Your task to perform on an android device: Show me the best rated coffee table on Ikea Image 0: 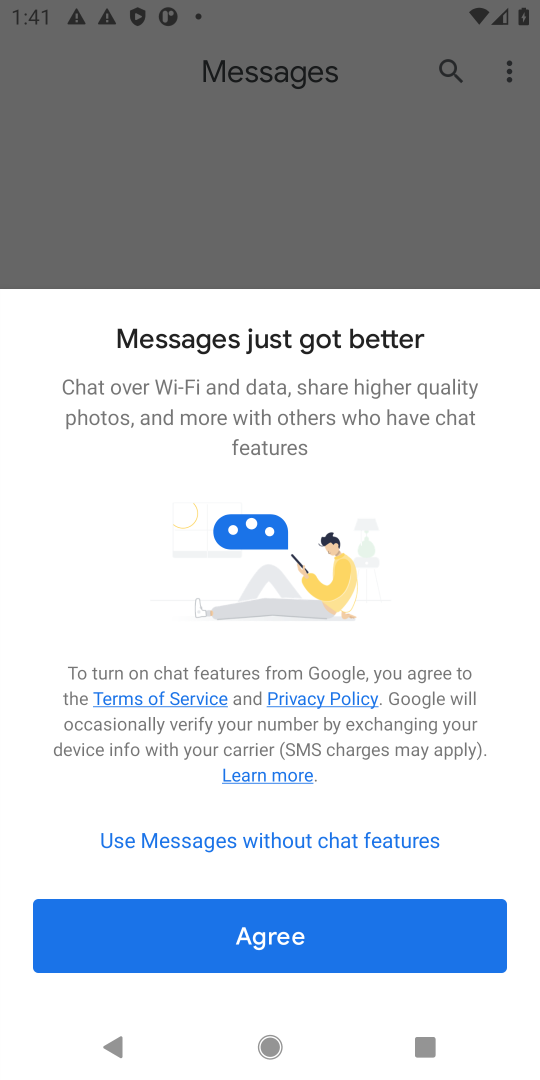
Step 0: press home button
Your task to perform on an android device: Show me the best rated coffee table on Ikea Image 1: 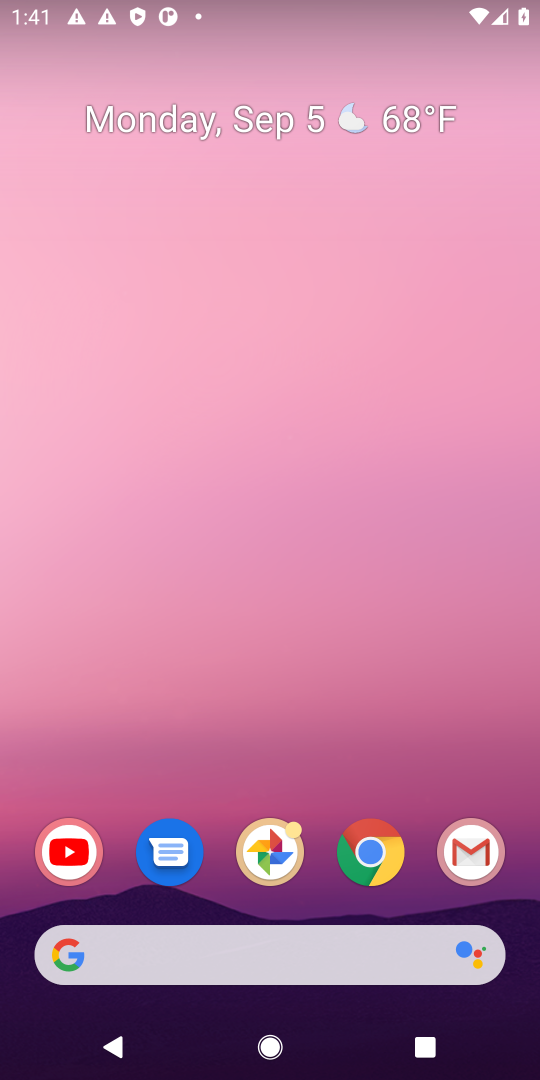
Step 1: click (372, 851)
Your task to perform on an android device: Show me the best rated coffee table on Ikea Image 2: 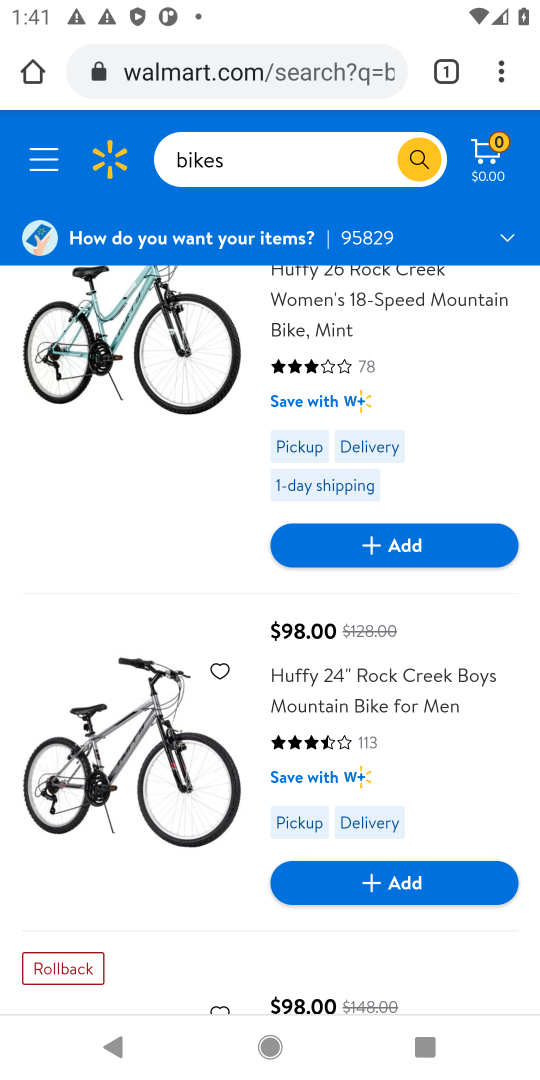
Step 2: click (293, 52)
Your task to perform on an android device: Show me the best rated coffee table on Ikea Image 3: 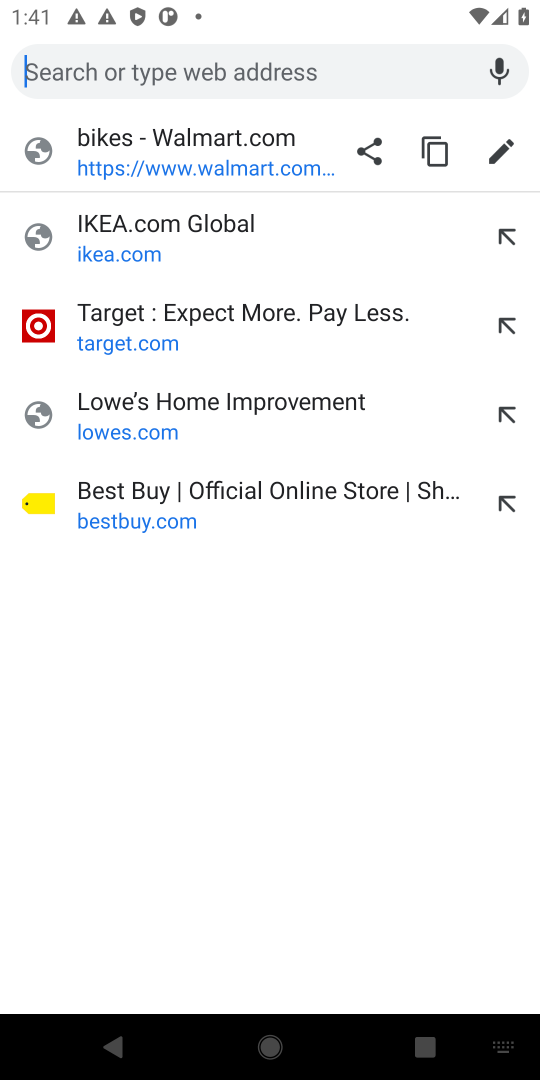
Step 3: type "Ikea"
Your task to perform on an android device: Show me the best rated coffee table on Ikea Image 4: 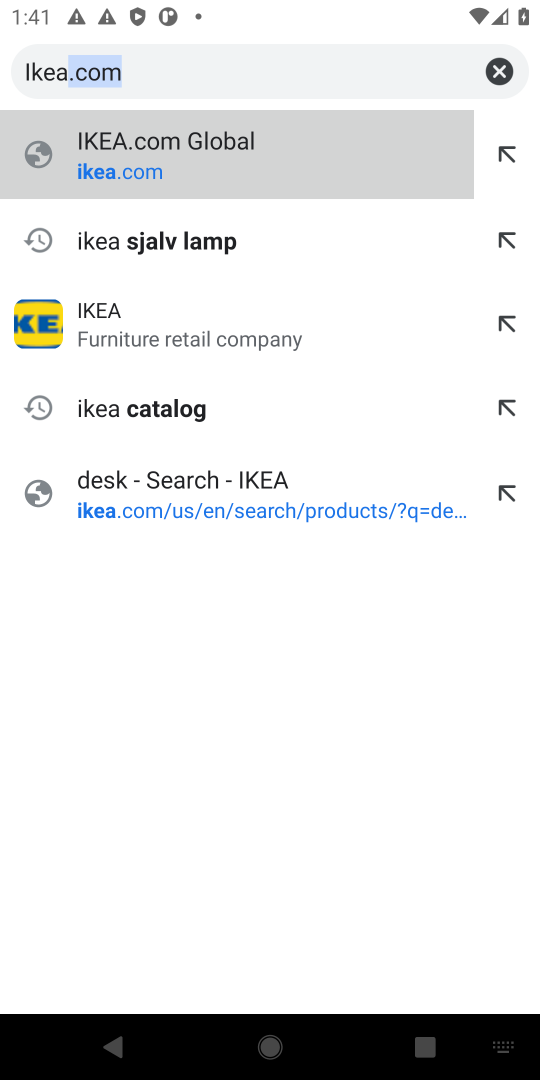
Step 4: click (135, 310)
Your task to perform on an android device: Show me the best rated coffee table on Ikea Image 5: 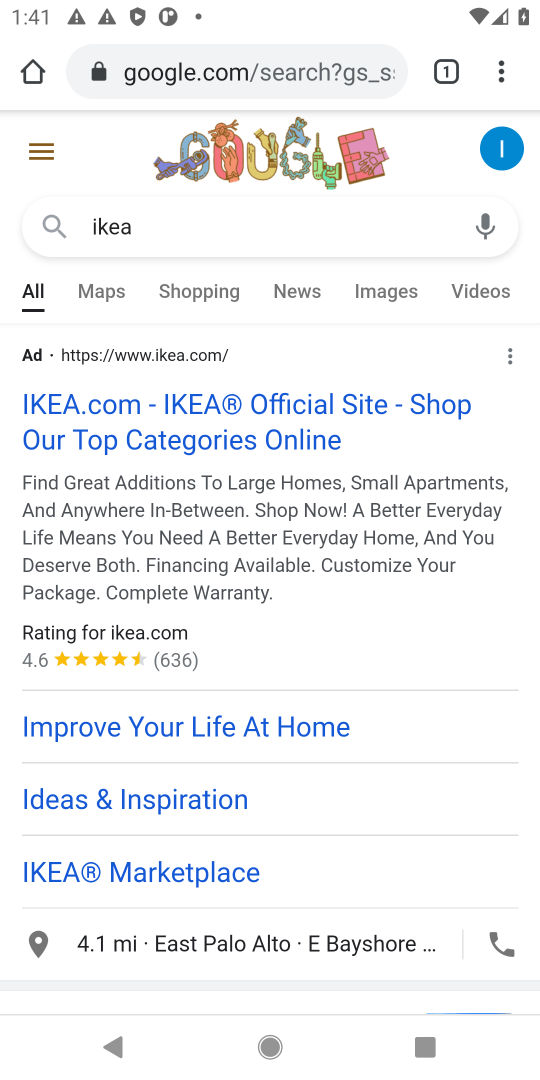
Step 5: click (72, 406)
Your task to perform on an android device: Show me the best rated coffee table on Ikea Image 6: 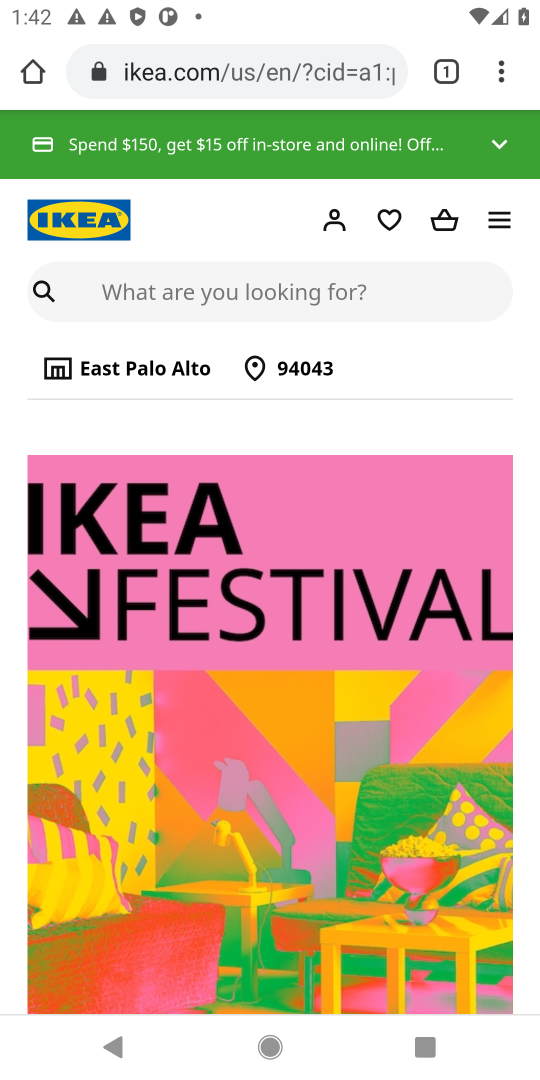
Step 6: click (154, 283)
Your task to perform on an android device: Show me the best rated coffee table on Ikea Image 7: 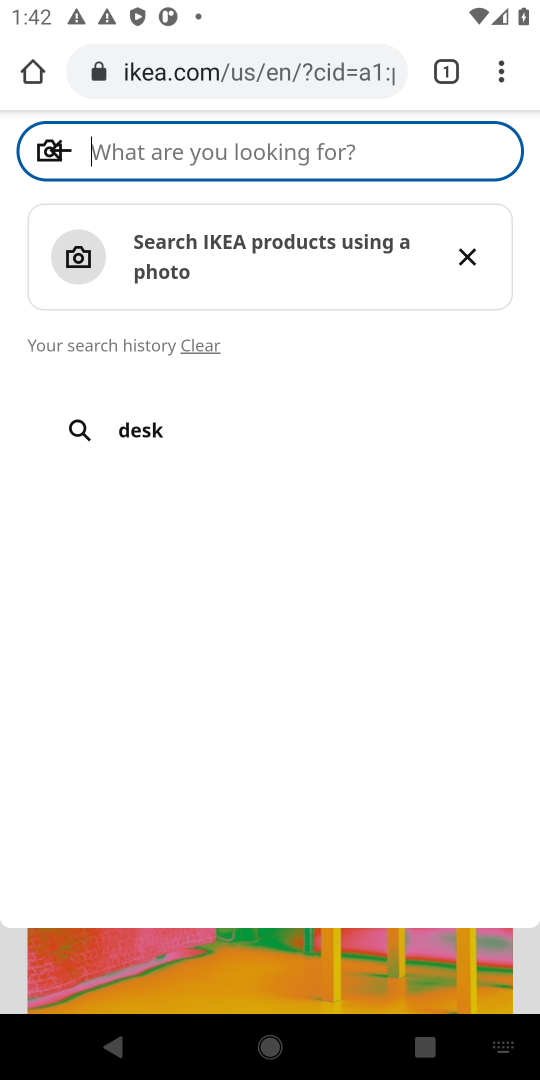
Step 7: type "coffee table"
Your task to perform on an android device: Show me the best rated coffee table on Ikea Image 8: 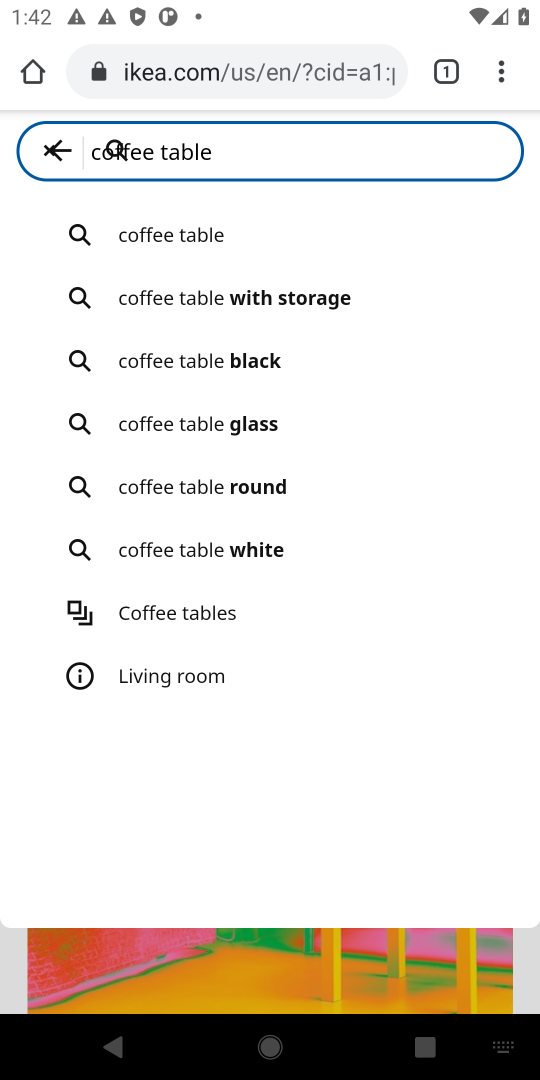
Step 8: click (142, 229)
Your task to perform on an android device: Show me the best rated coffee table on Ikea Image 9: 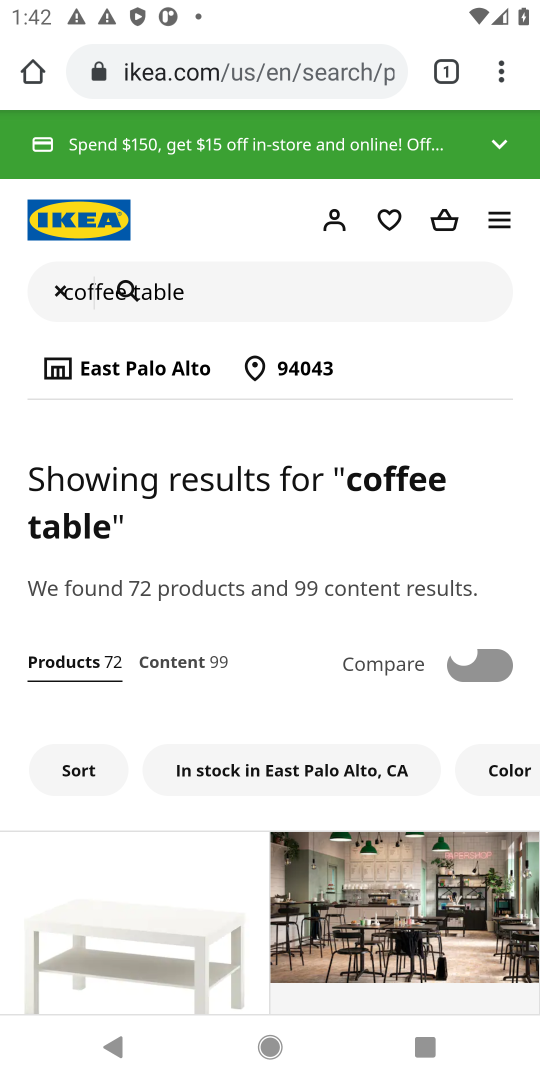
Step 9: drag from (257, 829) to (297, 384)
Your task to perform on an android device: Show me the best rated coffee table on Ikea Image 10: 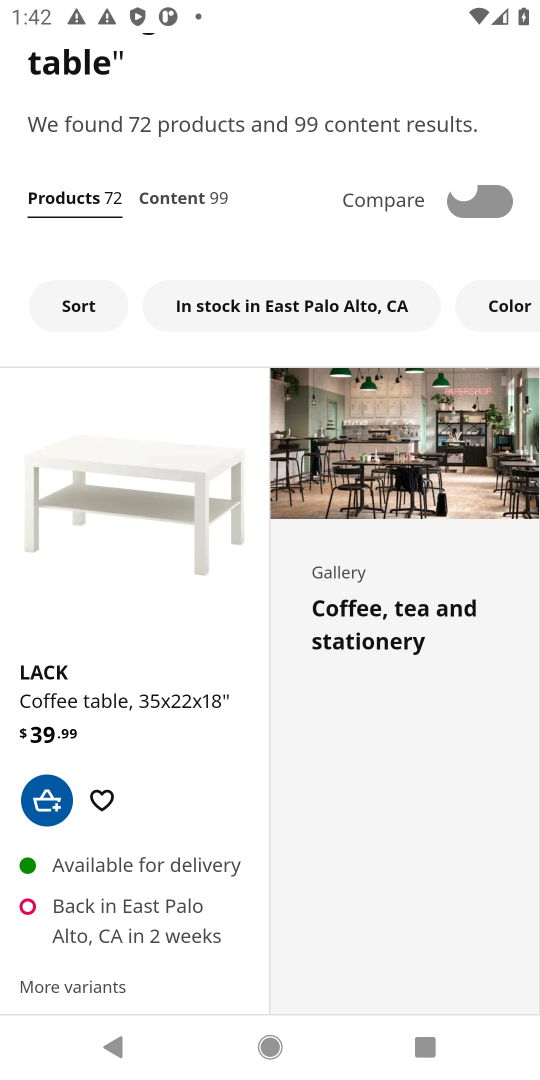
Step 10: drag from (284, 874) to (74, 128)
Your task to perform on an android device: Show me the best rated coffee table on Ikea Image 11: 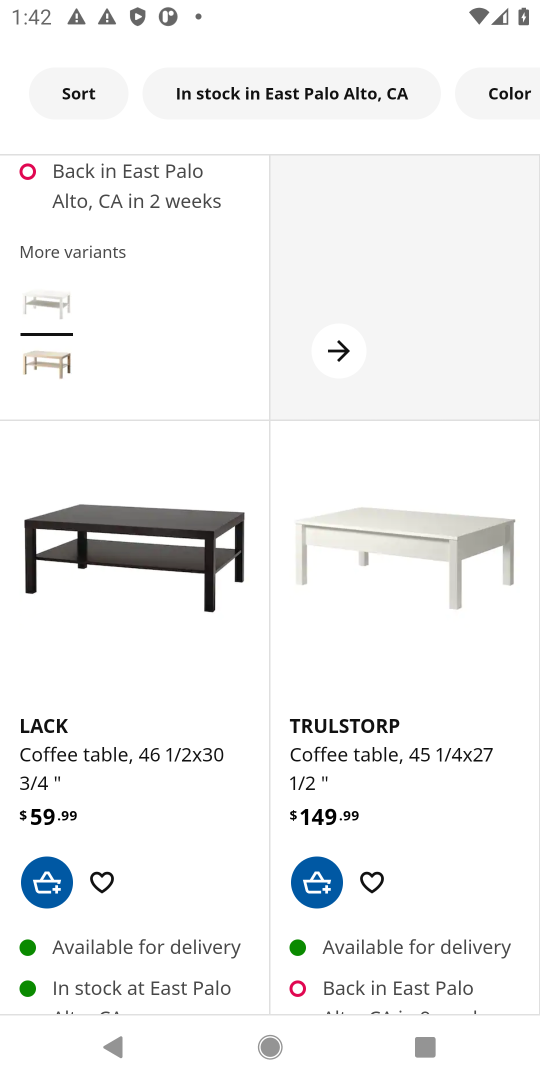
Step 11: click (74, 86)
Your task to perform on an android device: Show me the best rated coffee table on Ikea Image 12: 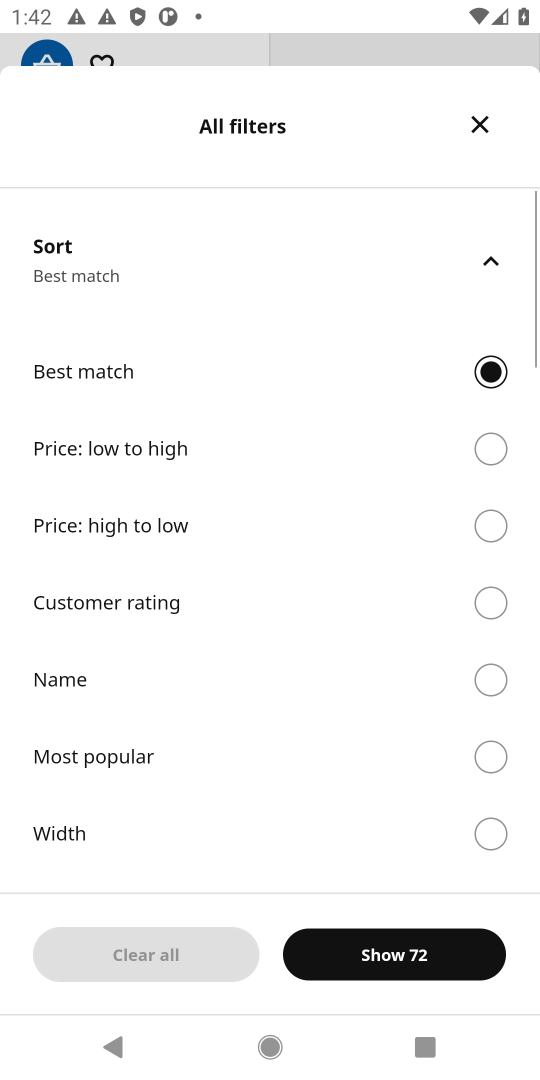
Step 12: click (491, 607)
Your task to perform on an android device: Show me the best rated coffee table on Ikea Image 13: 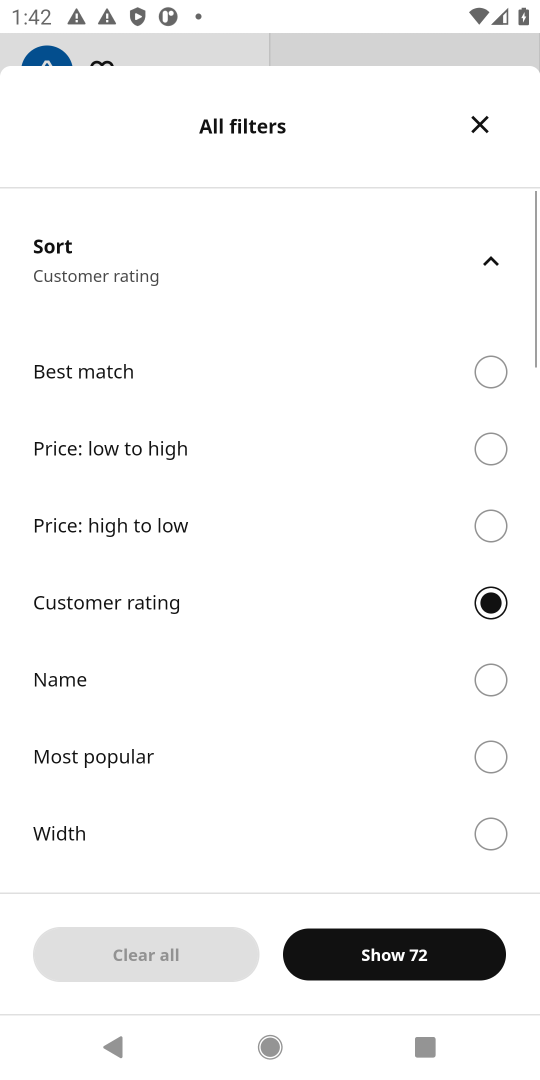
Step 13: click (396, 951)
Your task to perform on an android device: Show me the best rated coffee table on Ikea Image 14: 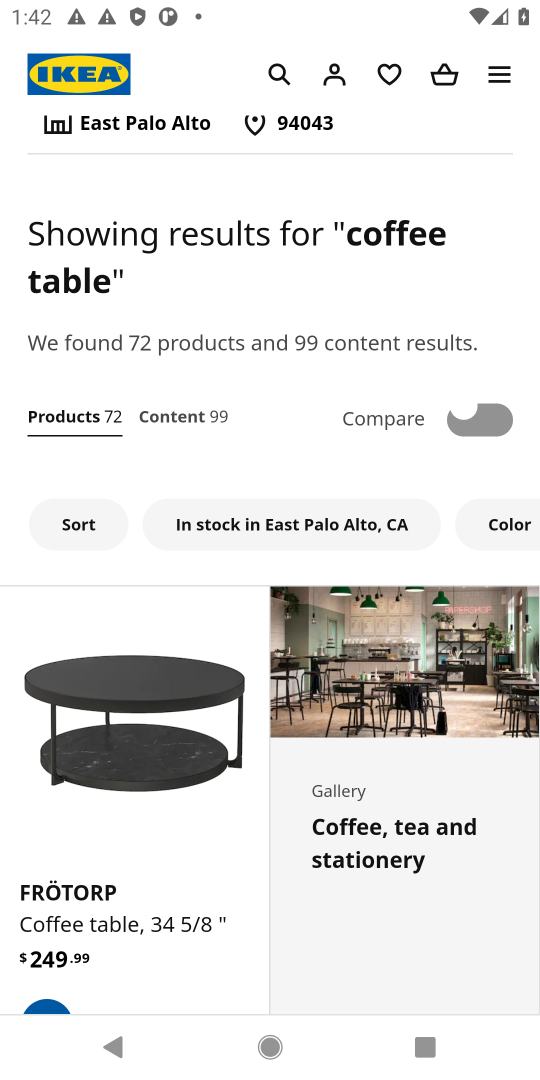
Step 14: click (285, 349)
Your task to perform on an android device: Show me the best rated coffee table on Ikea Image 15: 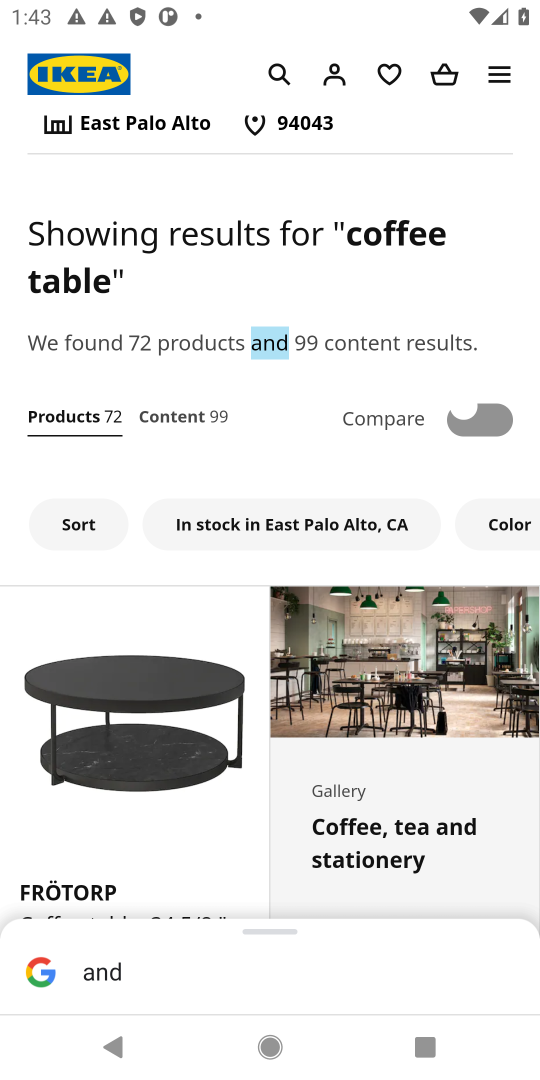
Step 15: task complete